Your task to perform on an android device: Open Google Image 0: 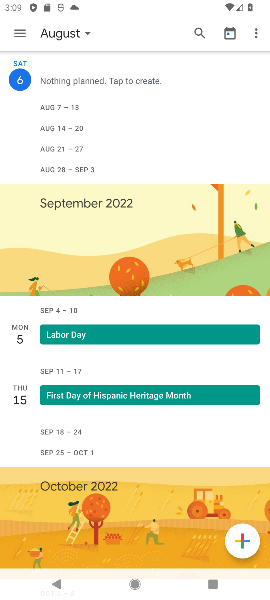
Step 0: press home button
Your task to perform on an android device: Open Google Image 1: 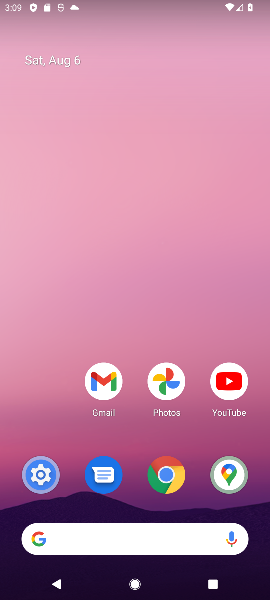
Step 1: click (56, 544)
Your task to perform on an android device: Open Google Image 2: 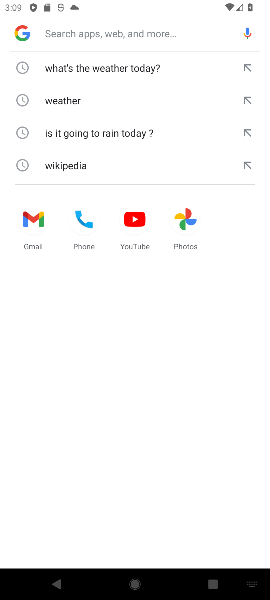
Step 2: task complete